Your task to perform on an android device: set the timer Image 0: 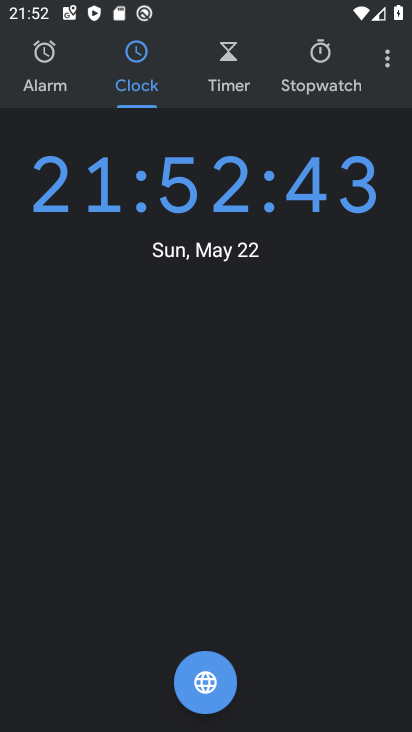
Step 0: press home button
Your task to perform on an android device: set the timer Image 1: 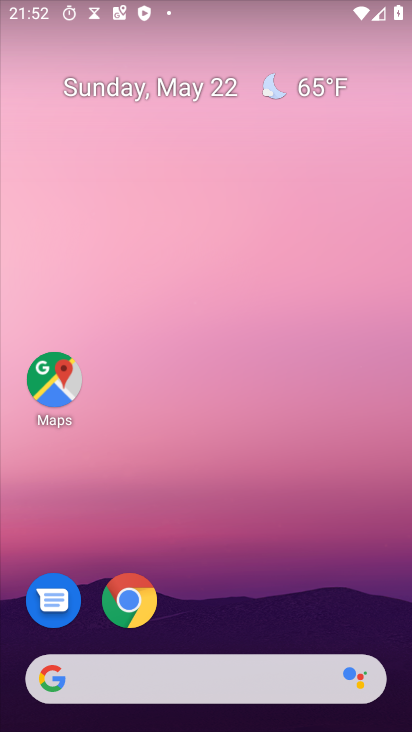
Step 1: drag from (214, 588) to (195, 277)
Your task to perform on an android device: set the timer Image 2: 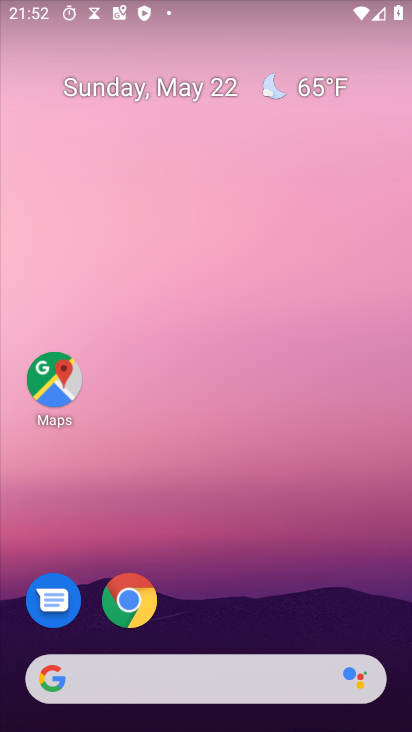
Step 2: drag from (213, 598) to (170, 97)
Your task to perform on an android device: set the timer Image 3: 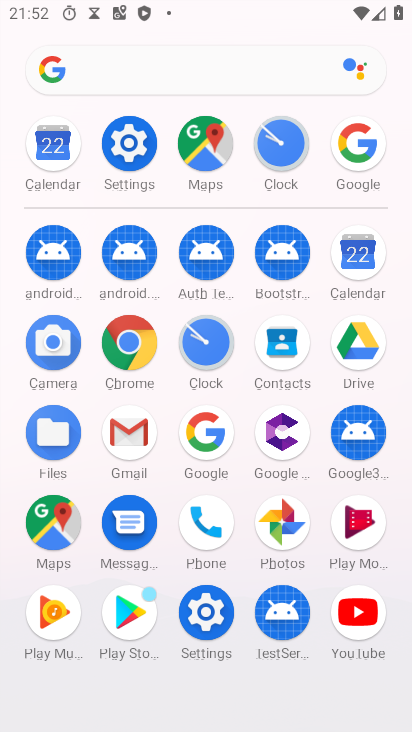
Step 3: click (213, 339)
Your task to perform on an android device: set the timer Image 4: 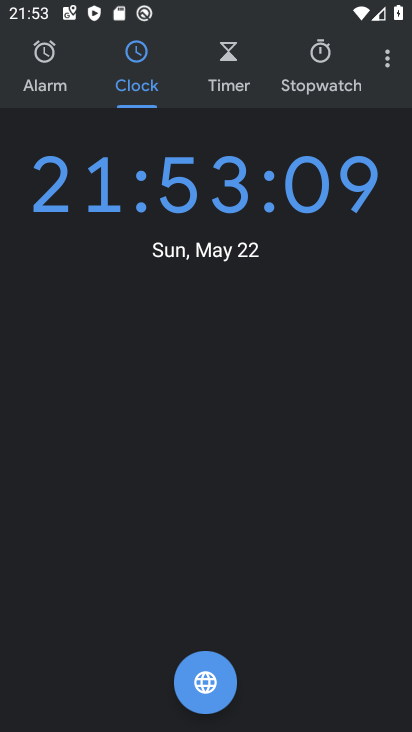
Step 4: click (239, 82)
Your task to perform on an android device: set the timer Image 5: 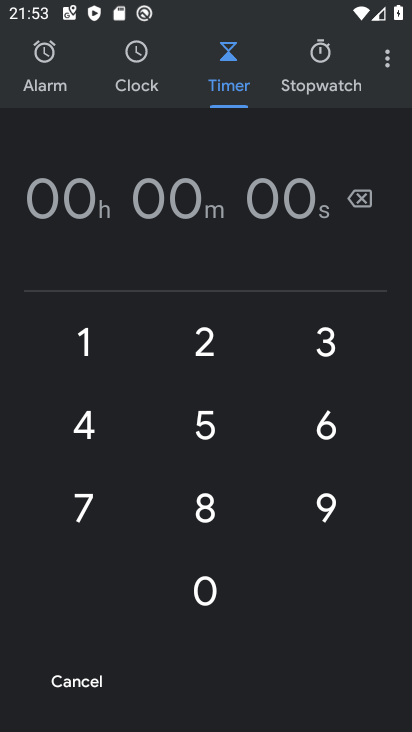
Step 5: click (206, 335)
Your task to perform on an android device: set the timer Image 6: 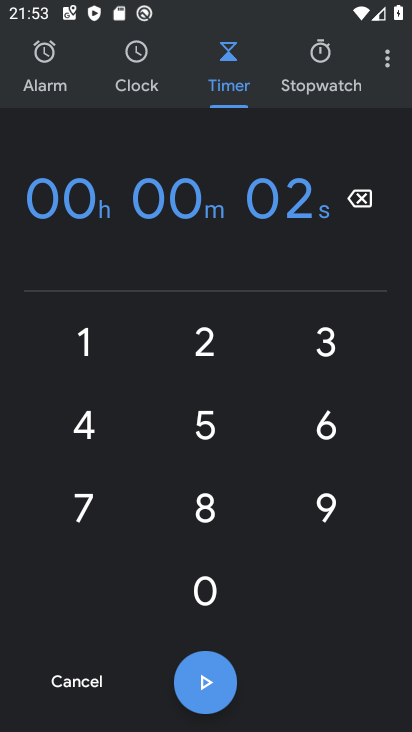
Step 6: click (199, 586)
Your task to perform on an android device: set the timer Image 7: 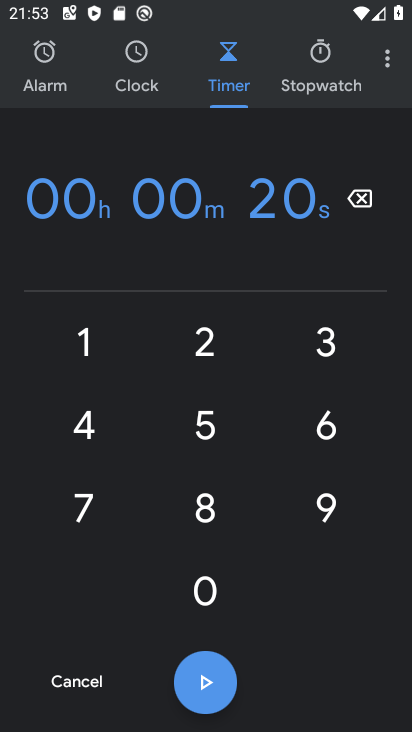
Step 7: click (201, 348)
Your task to perform on an android device: set the timer Image 8: 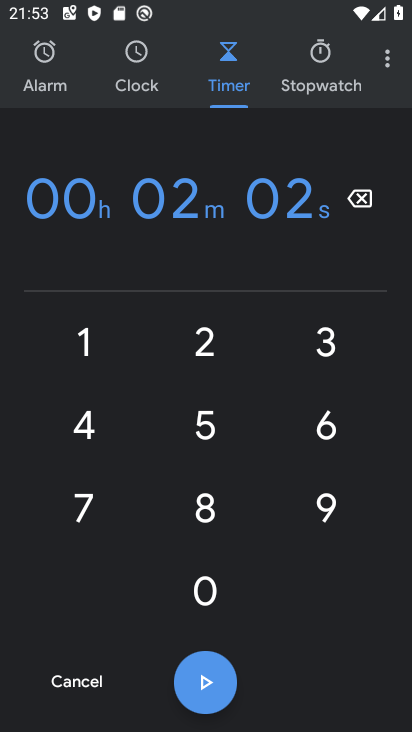
Step 8: click (224, 594)
Your task to perform on an android device: set the timer Image 9: 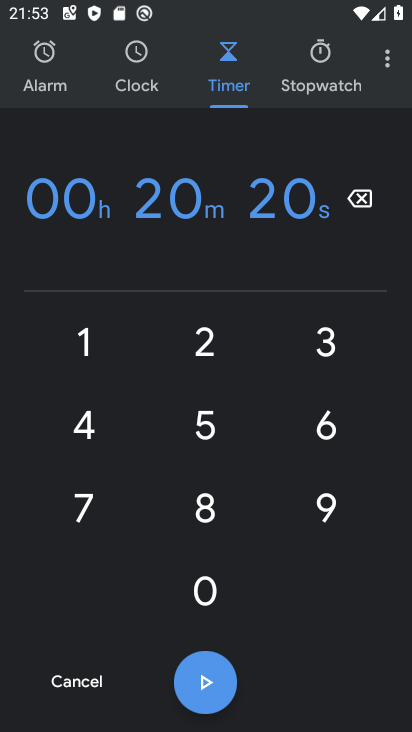
Step 9: click (204, 685)
Your task to perform on an android device: set the timer Image 10: 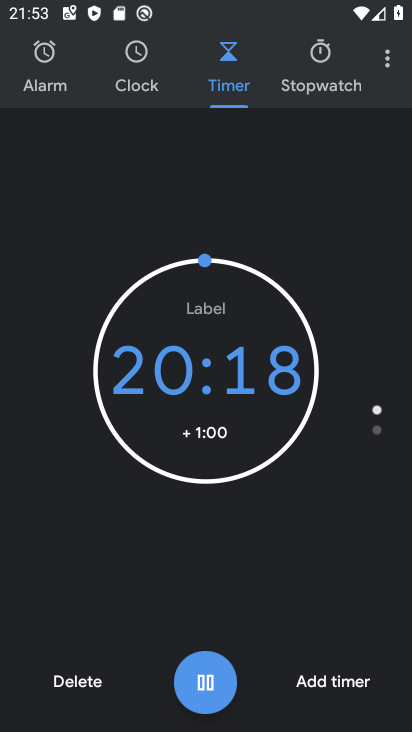
Step 10: click (331, 676)
Your task to perform on an android device: set the timer Image 11: 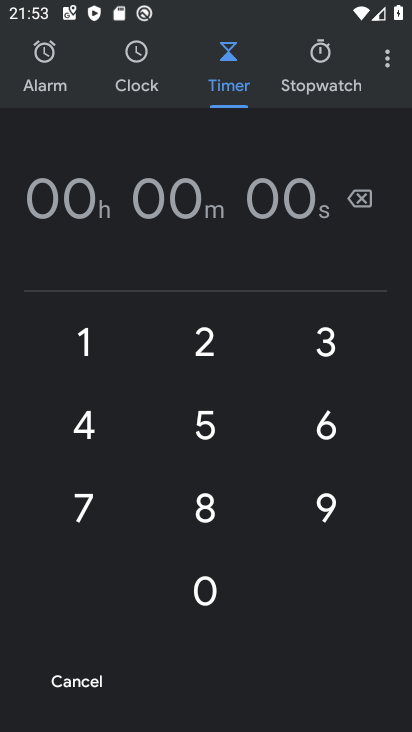
Step 11: task complete